Your task to perform on an android device: Open the phone app and click the voicemail tab. Image 0: 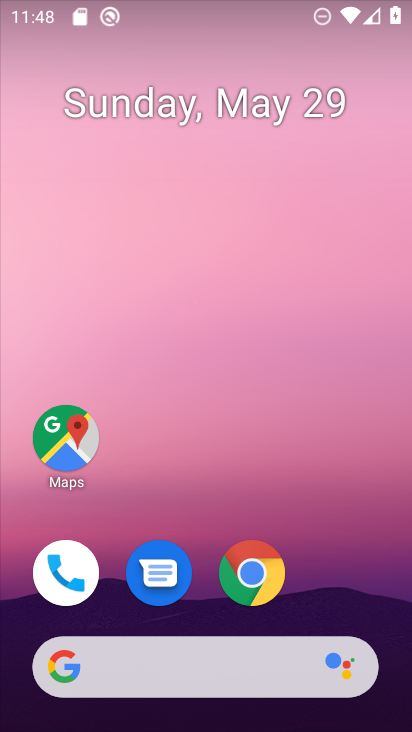
Step 0: drag from (352, 604) to (336, 149)
Your task to perform on an android device: Open the phone app and click the voicemail tab. Image 1: 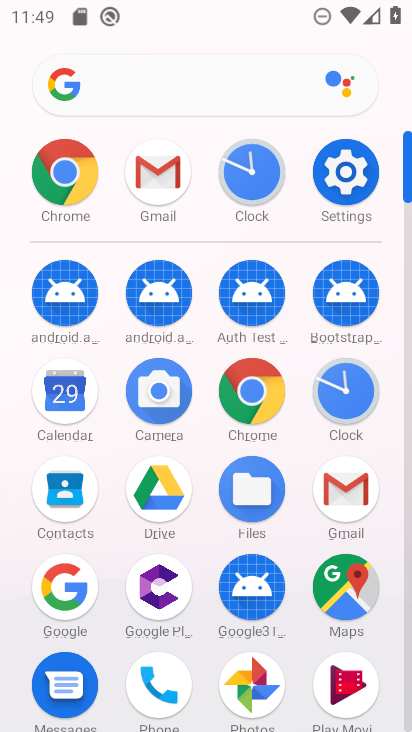
Step 1: click (147, 681)
Your task to perform on an android device: Open the phone app and click the voicemail tab. Image 2: 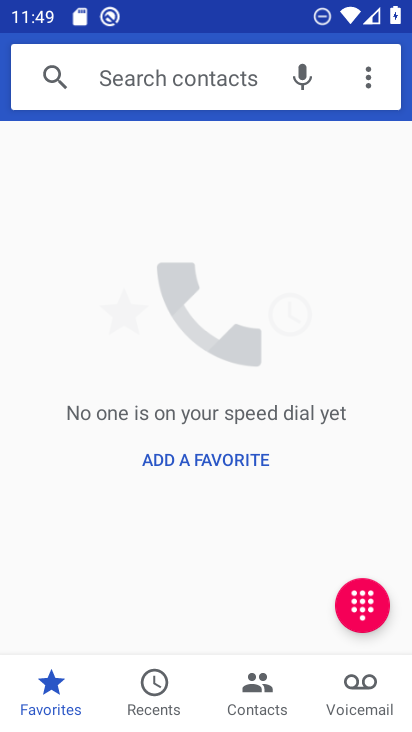
Step 2: click (365, 688)
Your task to perform on an android device: Open the phone app and click the voicemail tab. Image 3: 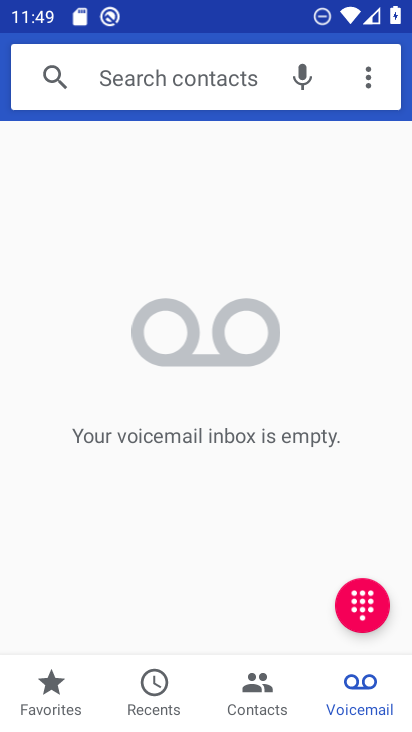
Step 3: task complete